Your task to perform on an android device: clear history in the chrome app Image 0: 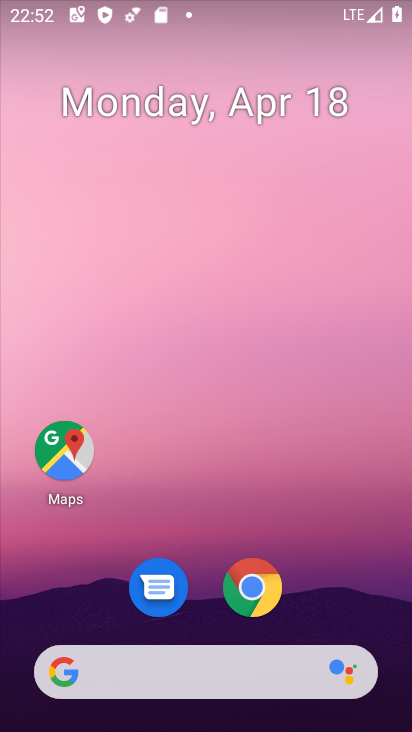
Step 0: drag from (391, 581) to (366, 106)
Your task to perform on an android device: clear history in the chrome app Image 1: 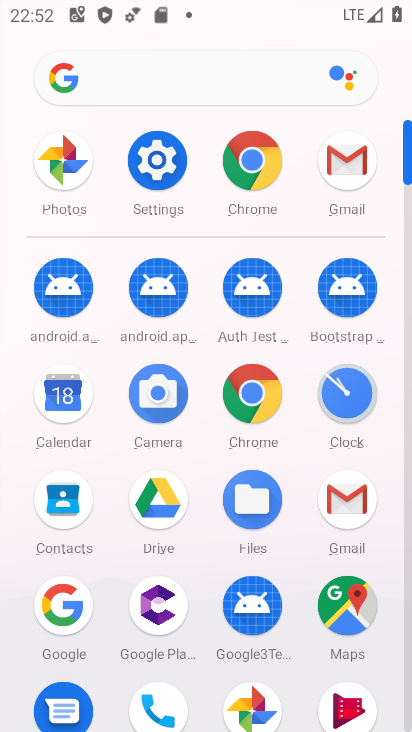
Step 1: click (250, 400)
Your task to perform on an android device: clear history in the chrome app Image 2: 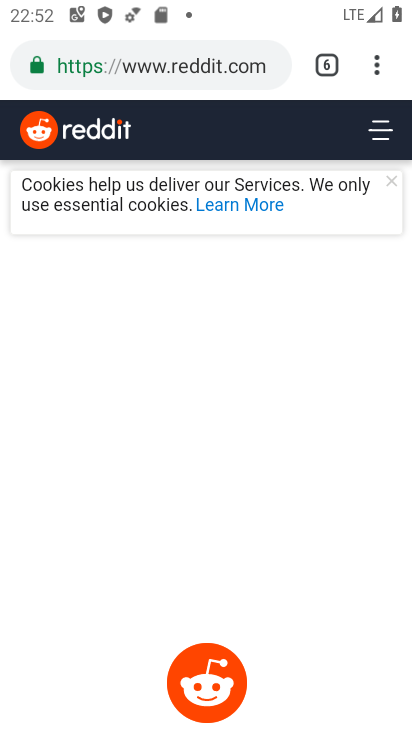
Step 2: click (379, 72)
Your task to perform on an android device: clear history in the chrome app Image 3: 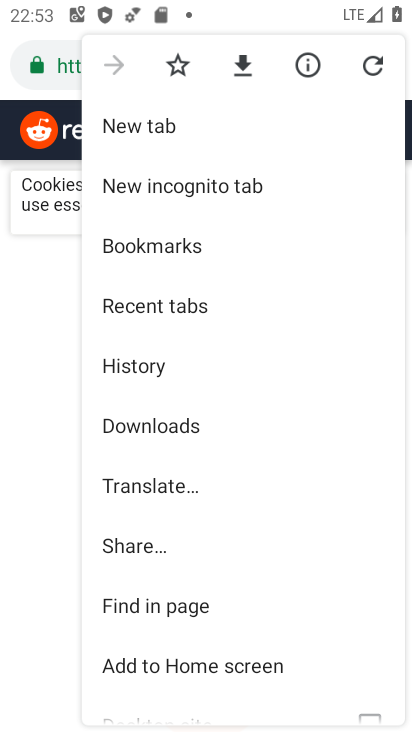
Step 3: click (162, 368)
Your task to perform on an android device: clear history in the chrome app Image 4: 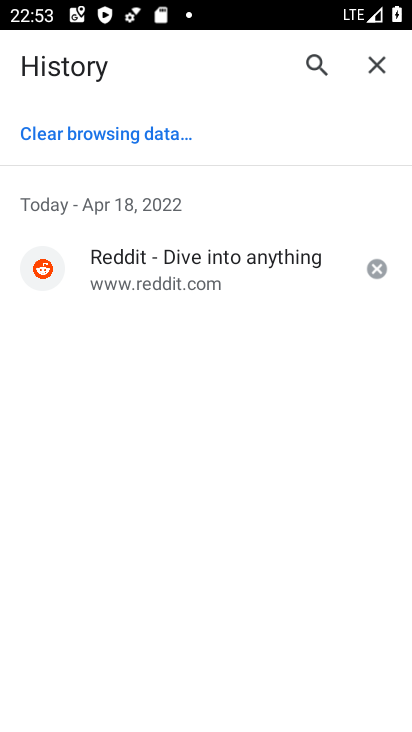
Step 4: click (138, 124)
Your task to perform on an android device: clear history in the chrome app Image 5: 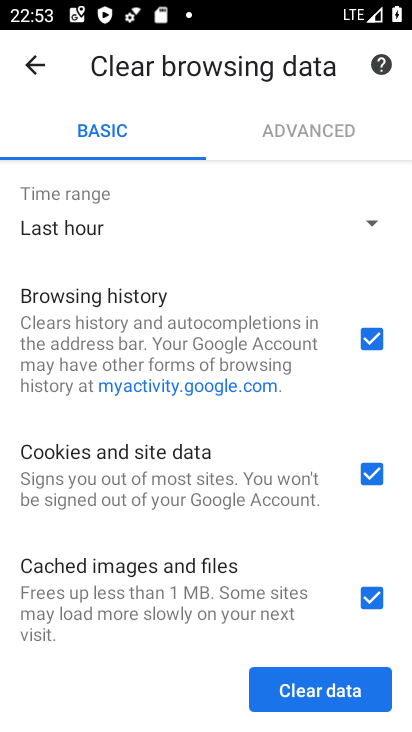
Step 5: click (290, 691)
Your task to perform on an android device: clear history in the chrome app Image 6: 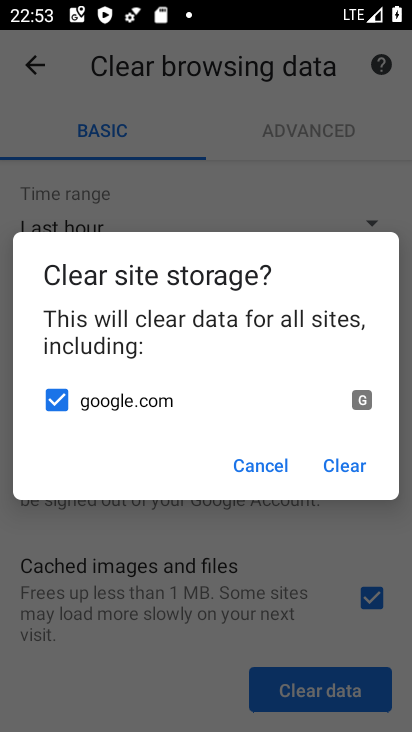
Step 6: click (335, 462)
Your task to perform on an android device: clear history in the chrome app Image 7: 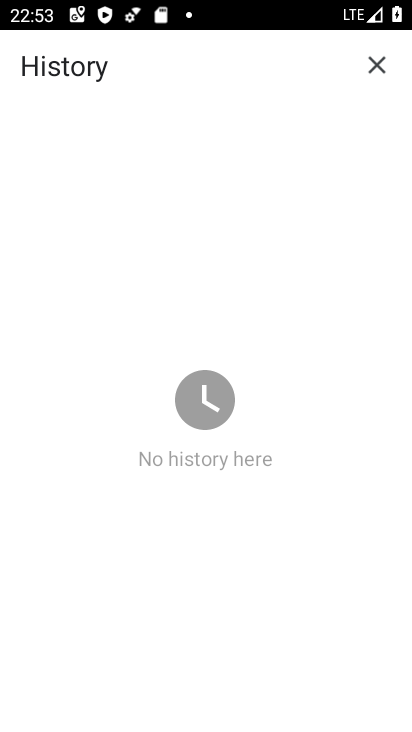
Step 7: task complete